Your task to perform on an android device: Go to Maps Image 0: 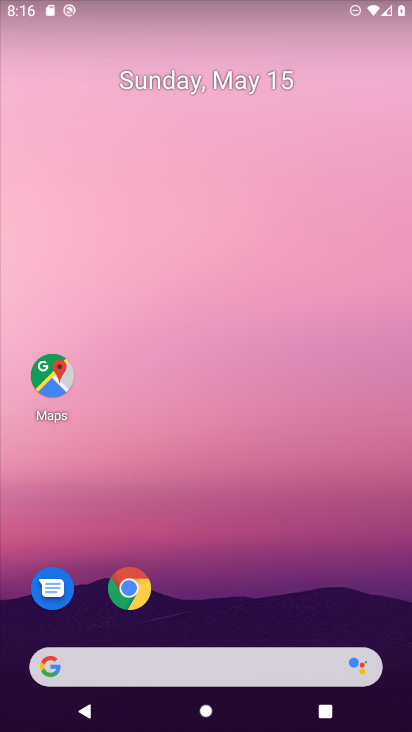
Step 0: click (47, 377)
Your task to perform on an android device: Go to Maps Image 1: 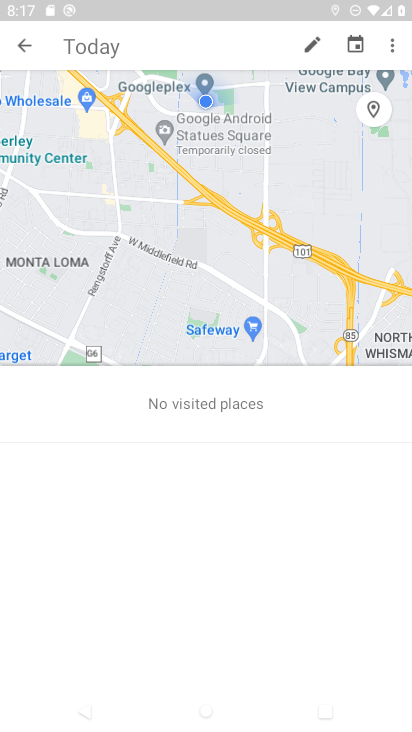
Step 1: task complete